Your task to perform on an android device: install app "Google News" Image 0: 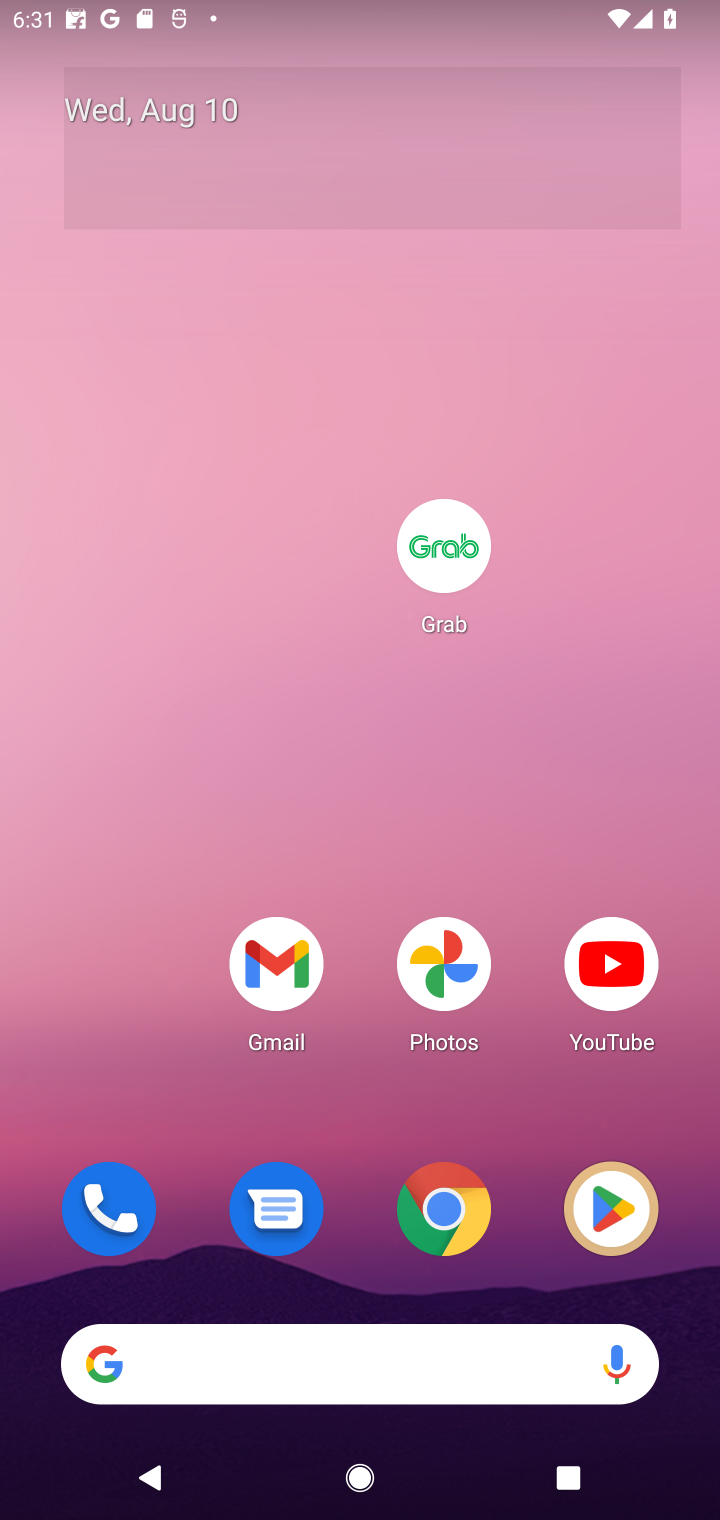
Step 0: drag from (368, 1299) to (373, 173)
Your task to perform on an android device: install app "Google News" Image 1: 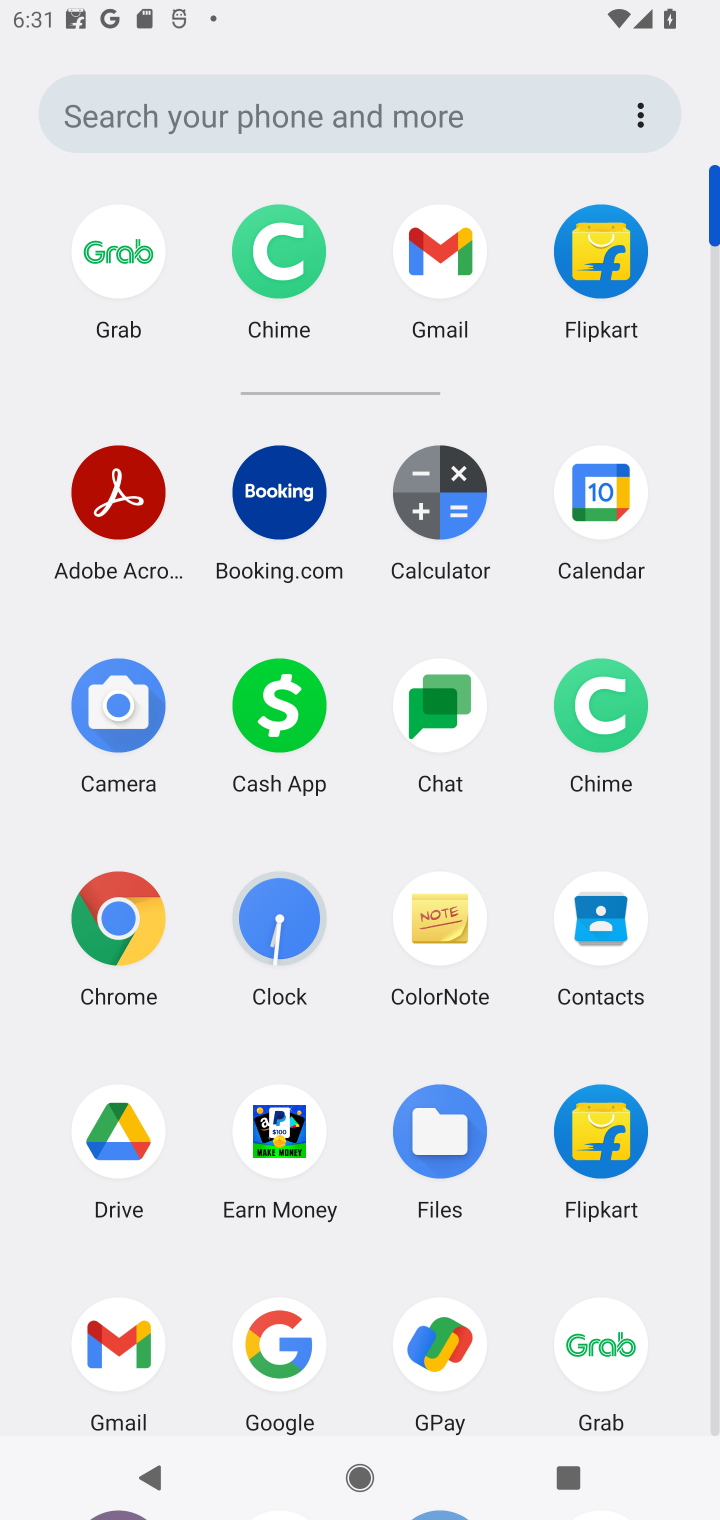
Step 1: click (367, 129)
Your task to perform on an android device: install app "Google News" Image 2: 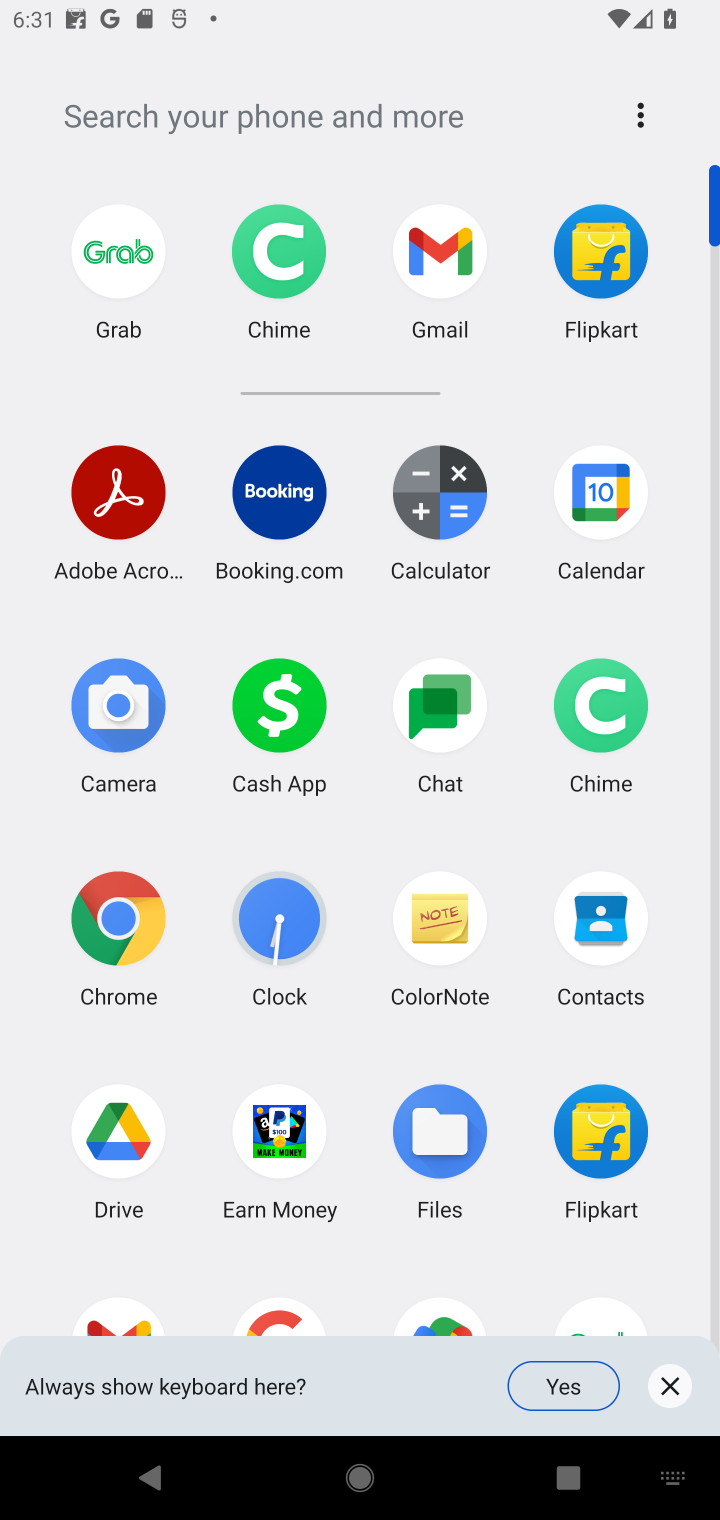
Step 2: press home button
Your task to perform on an android device: install app "Google News" Image 3: 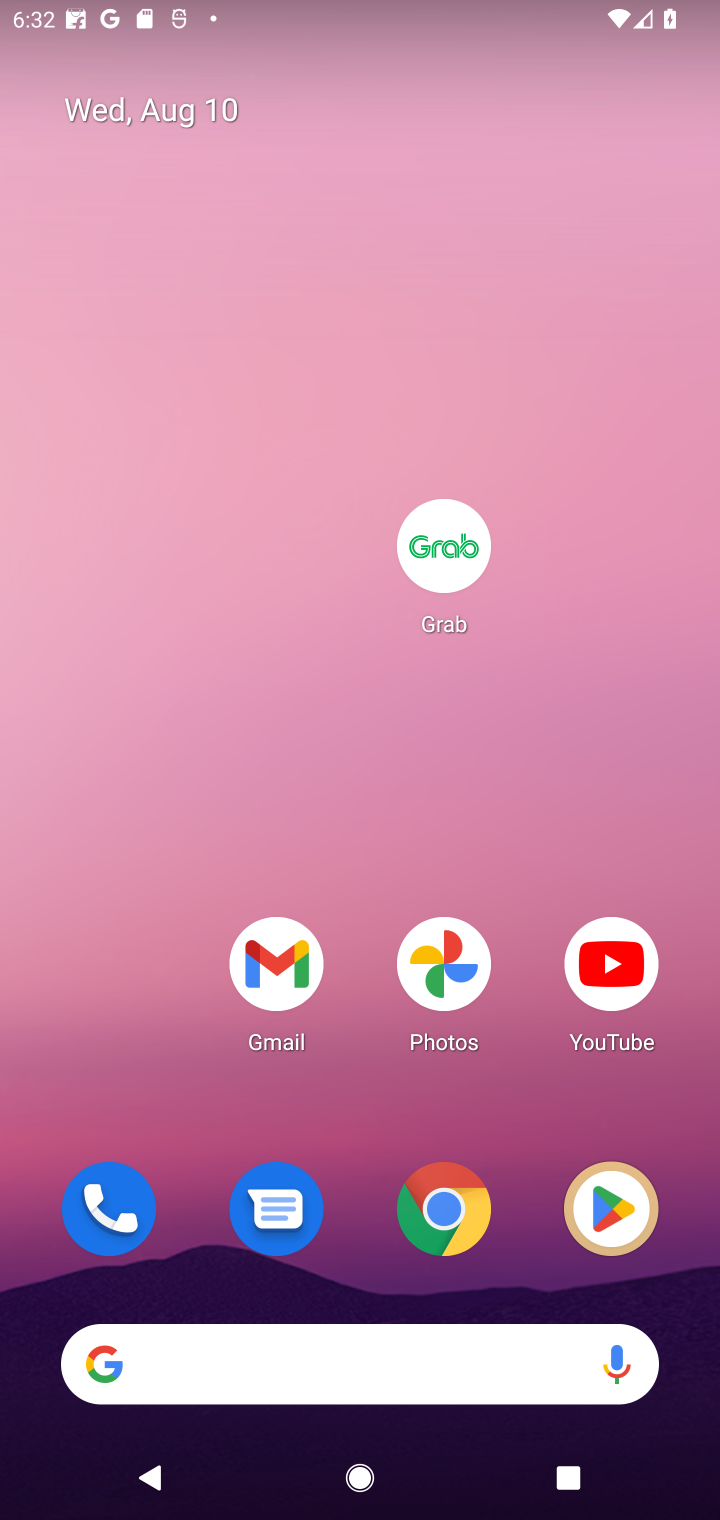
Step 3: click (589, 1225)
Your task to perform on an android device: install app "Google News" Image 4: 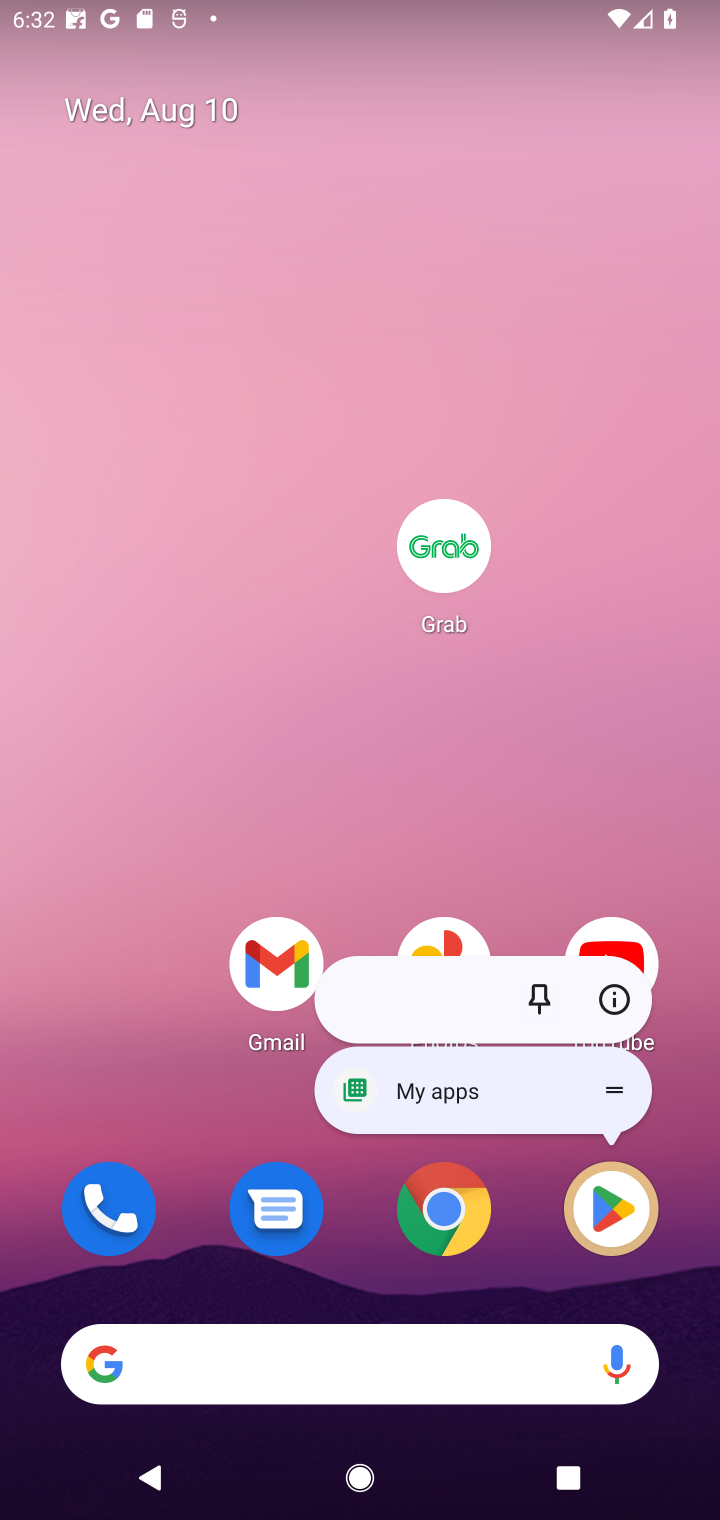
Step 4: click (578, 1205)
Your task to perform on an android device: install app "Google News" Image 5: 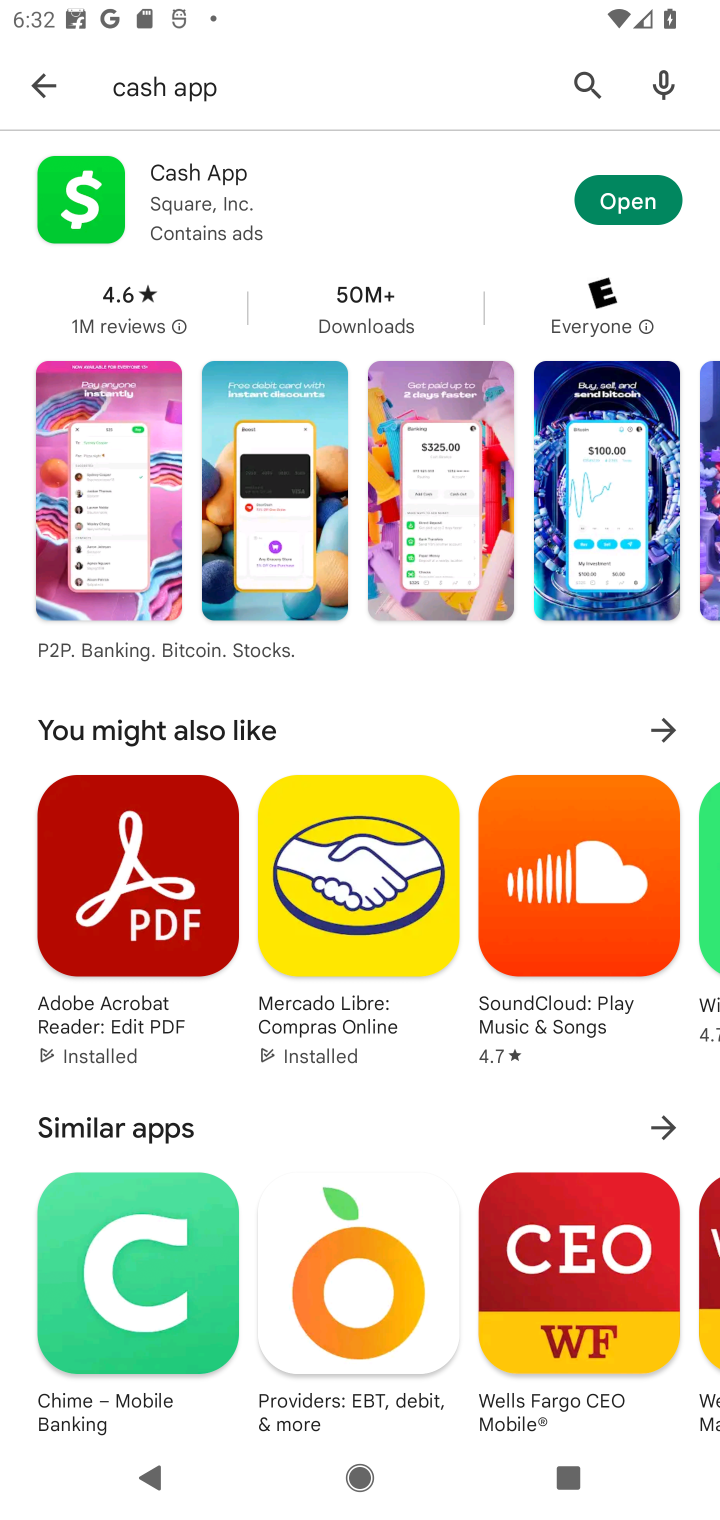
Step 5: click (559, 71)
Your task to perform on an android device: install app "Google News" Image 6: 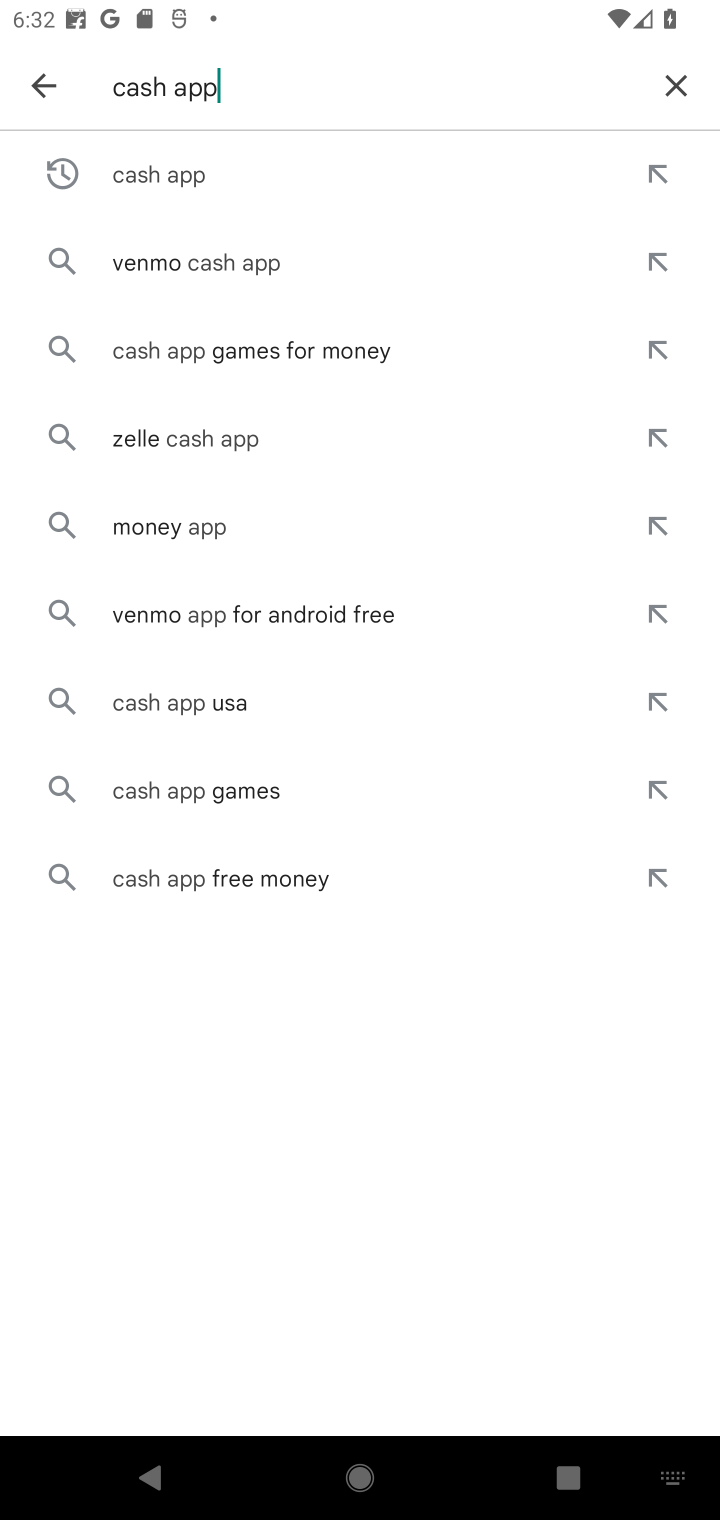
Step 6: click (667, 71)
Your task to perform on an android device: install app "Google News" Image 7: 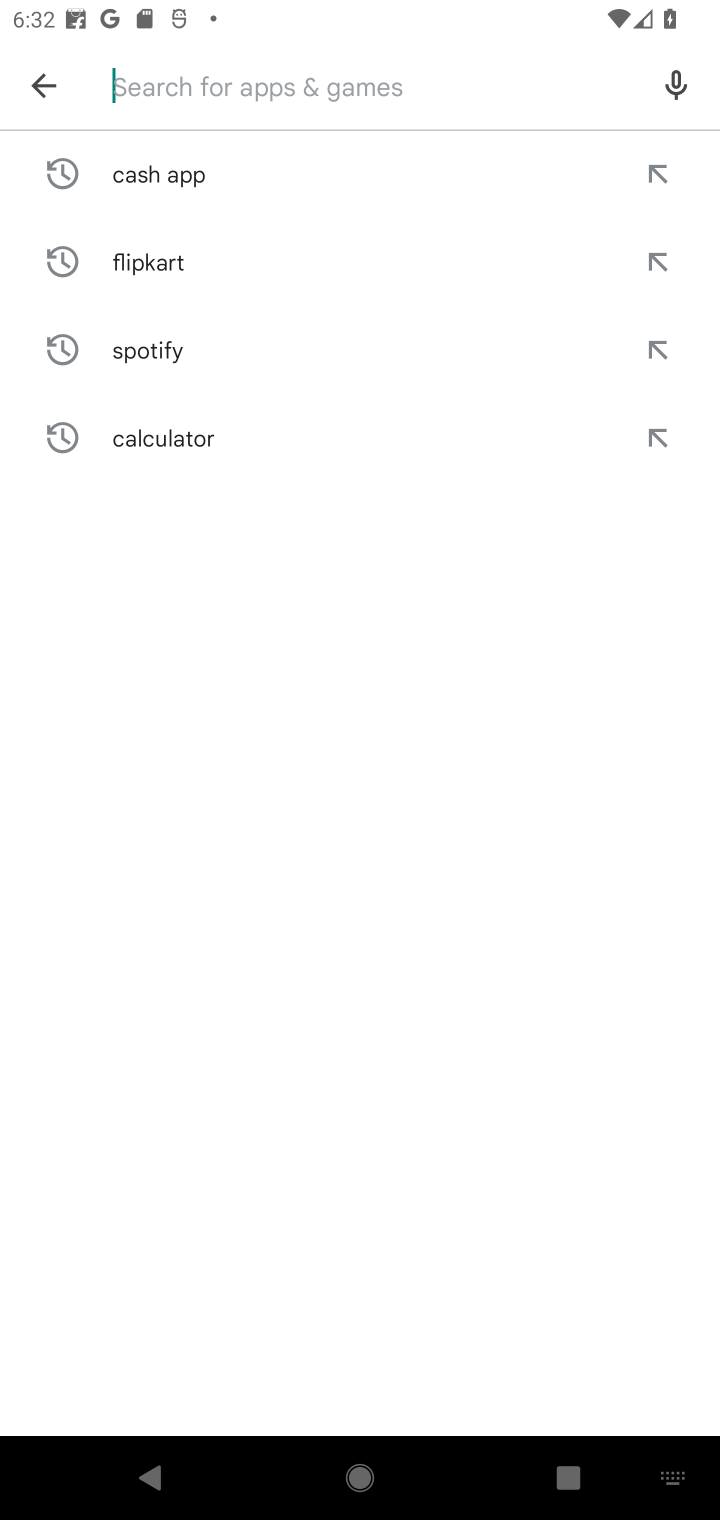
Step 7: type "google news"
Your task to perform on an android device: install app "Google News" Image 8: 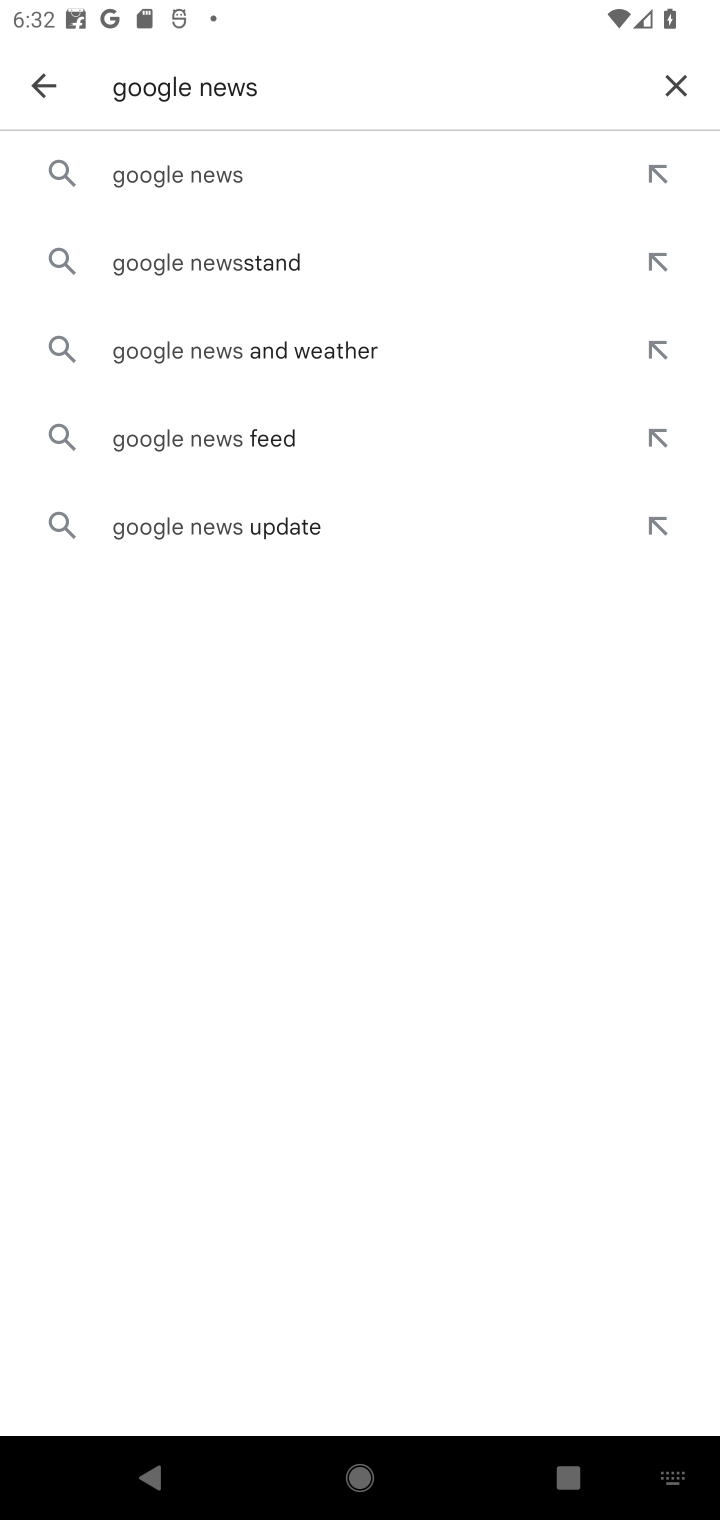
Step 8: click (153, 157)
Your task to perform on an android device: install app "Google News" Image 9: 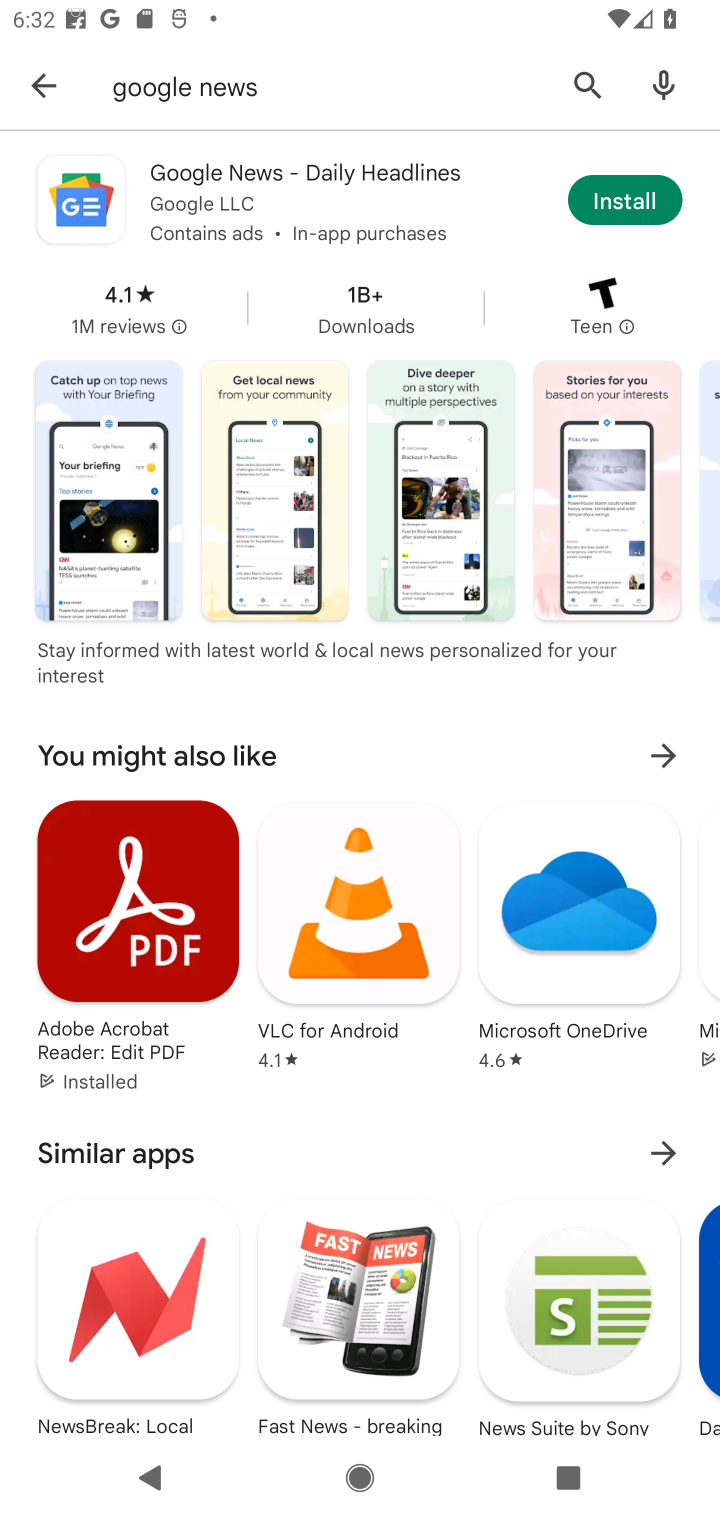
Step 9: click (648, 179)
Your task to perform on an android device: install app "Google News" Image 10: 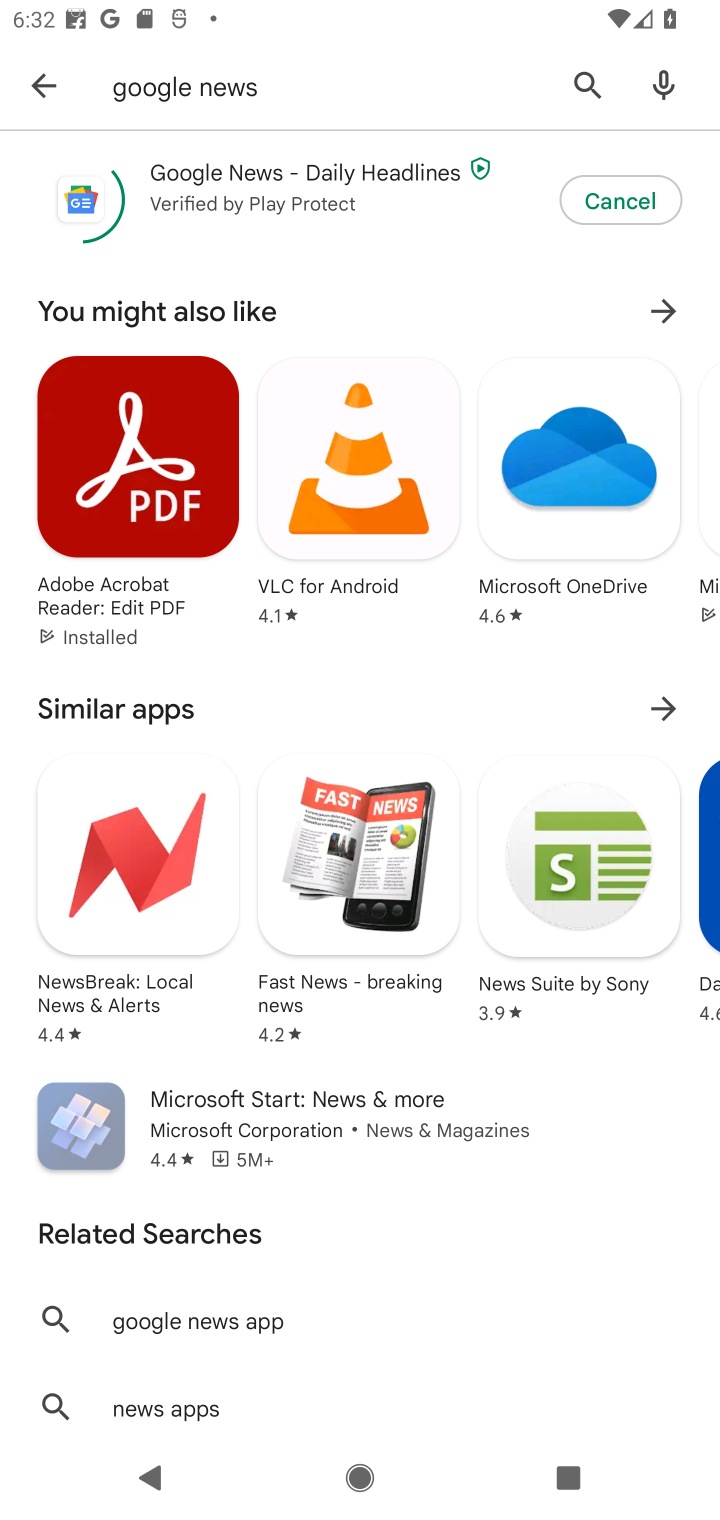
Step 10: task complete